Your task to perform on an android device: Add duracell triple a to the cart on amazon, then select checkout. Image 0: 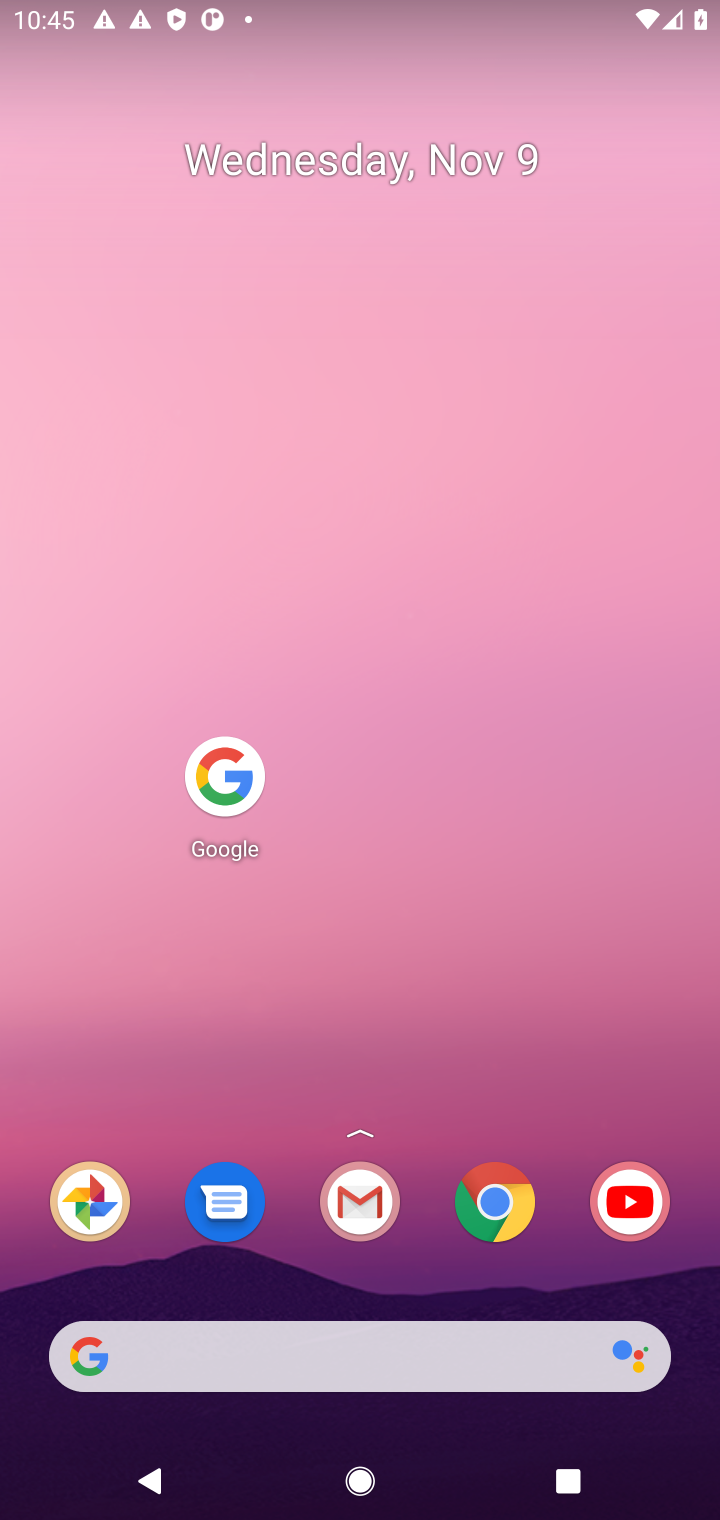
Step 0: click (219, 783)
Your task to perform on an android device: Add duracell triple a to the cart on amazon, then select checkout. Image 1: 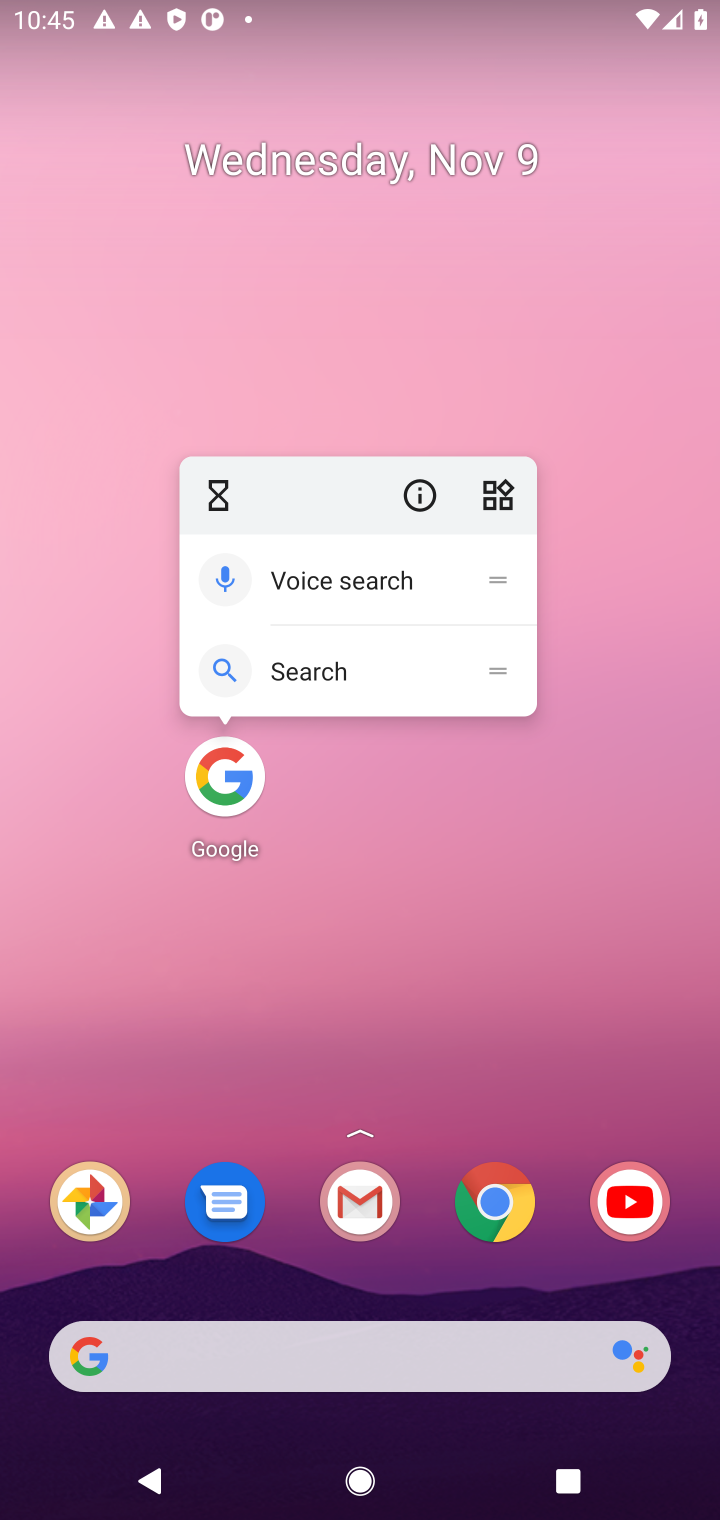
Step 1: click (237, 767)
Your task to perform on an android device: Add duracell triple a to the cart on amazon, then select checkout. Image 2: 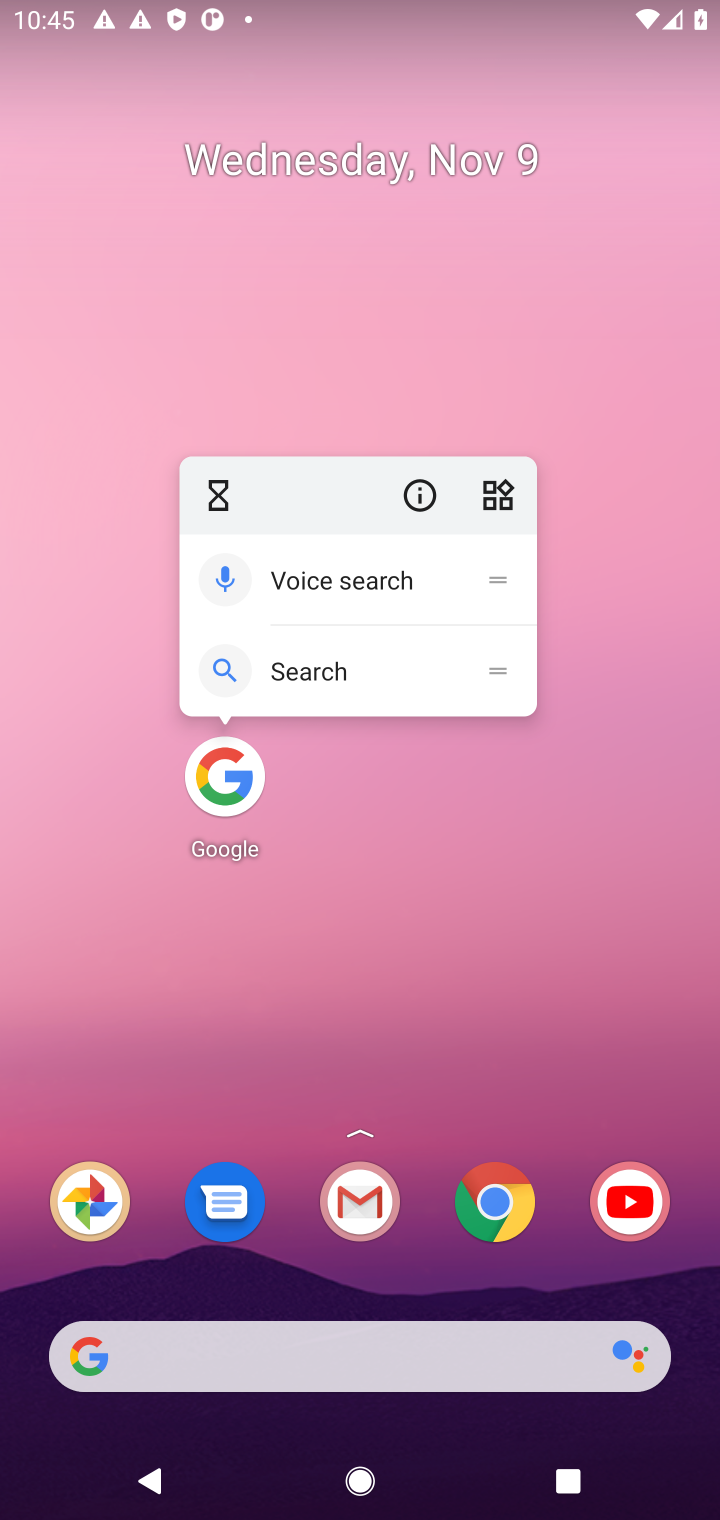
Step 2: click (219, 763)
Your task to perform on an android device: Add duracell triple a to the cart on amazon, then select checkout. Image 3: 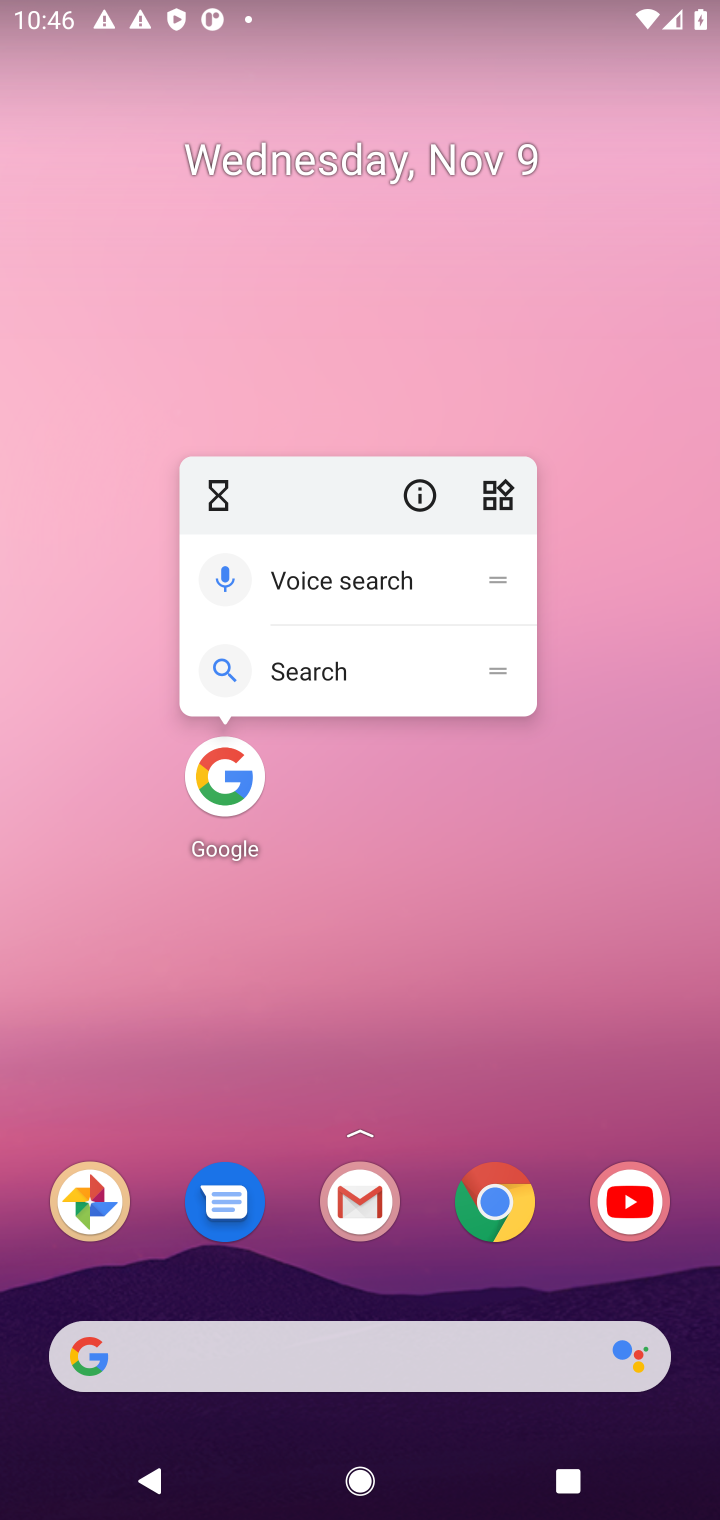
Step 3: click (206, 753)
Your task to perform on an android device: Add duracell triple a to the cart on amazon, then select checkout. Image 4: 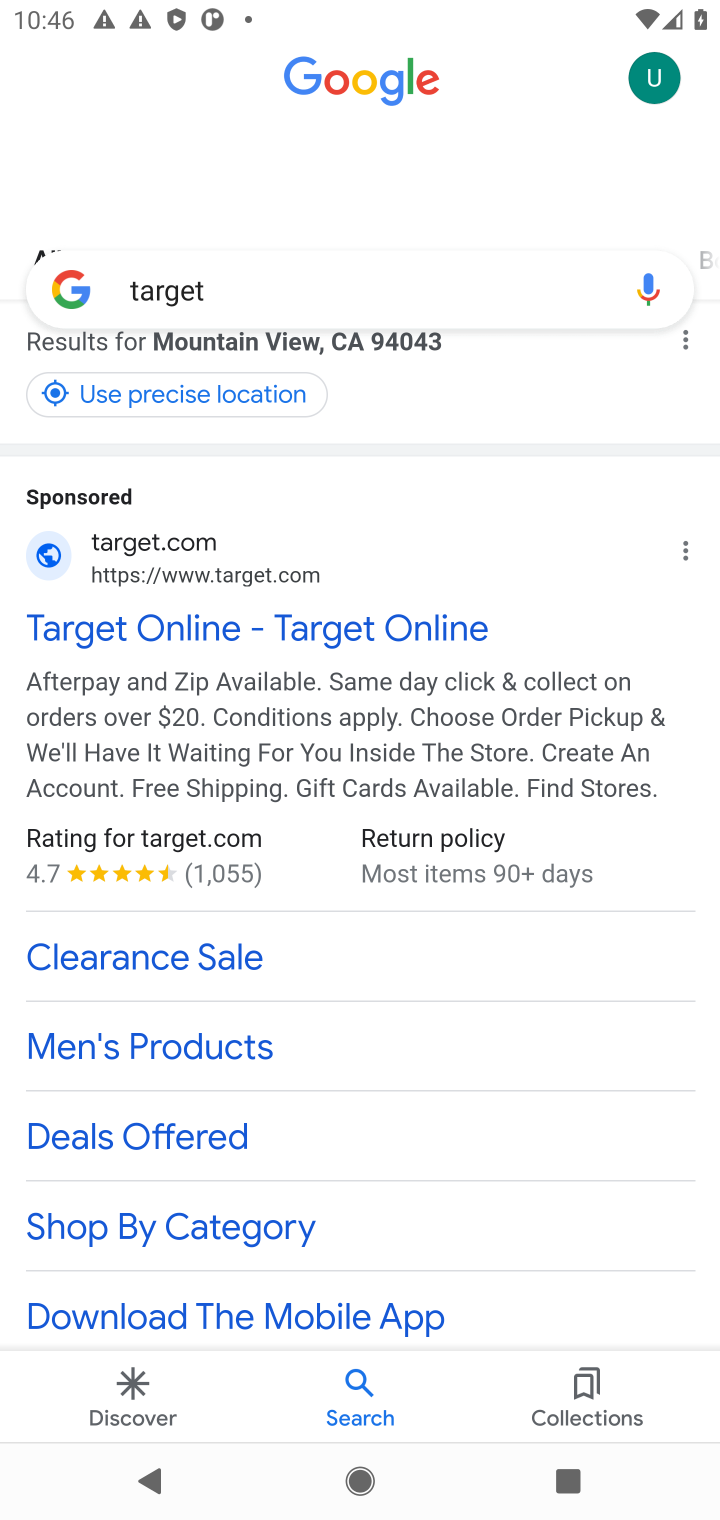
Step 4: click (269, 278)
Your task to perform on an android device: Add duracell triple a to the cart on amazon, then select checkout. Image 5: 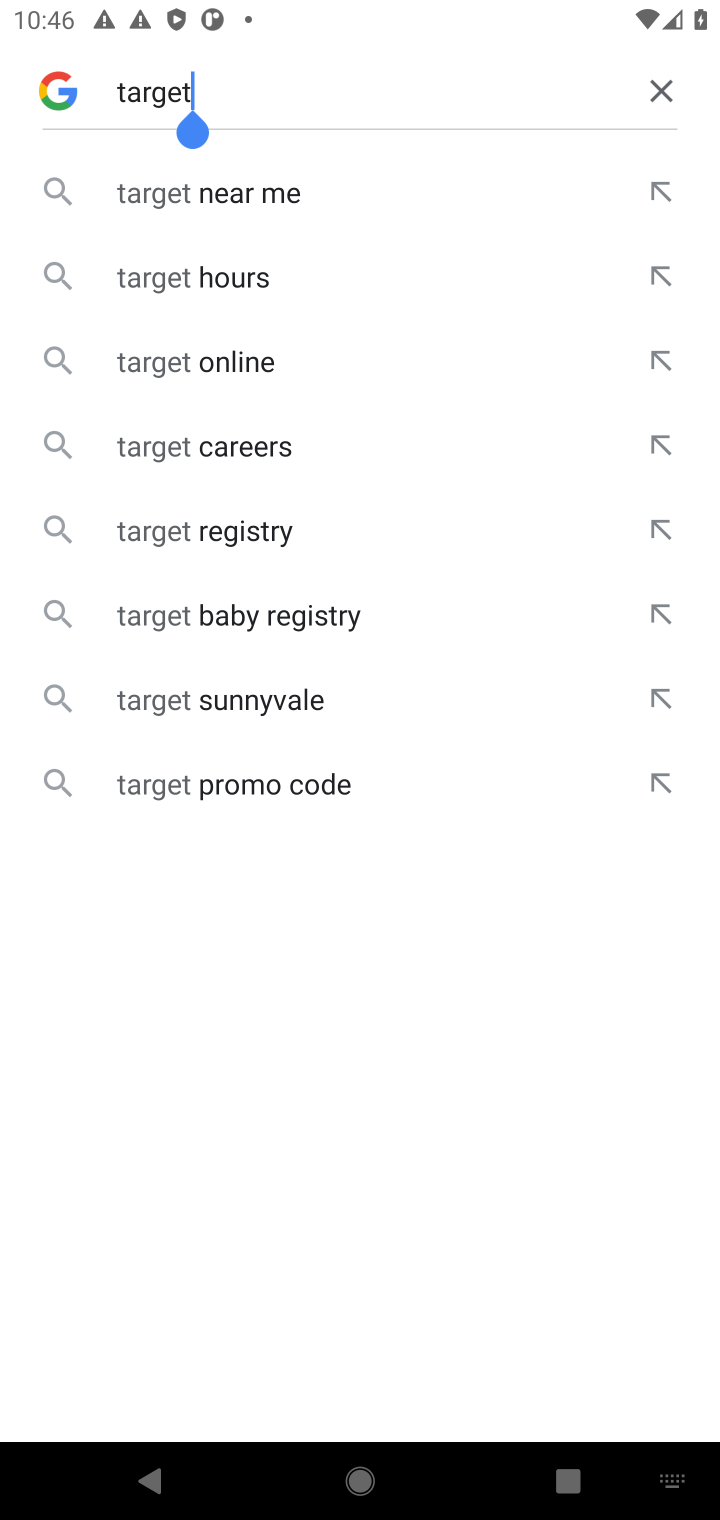
Step 5: click (660, 73)
Your task to perform on an android device: Add duracell triple a to the cart on amazon, then select checkout. Image 6: 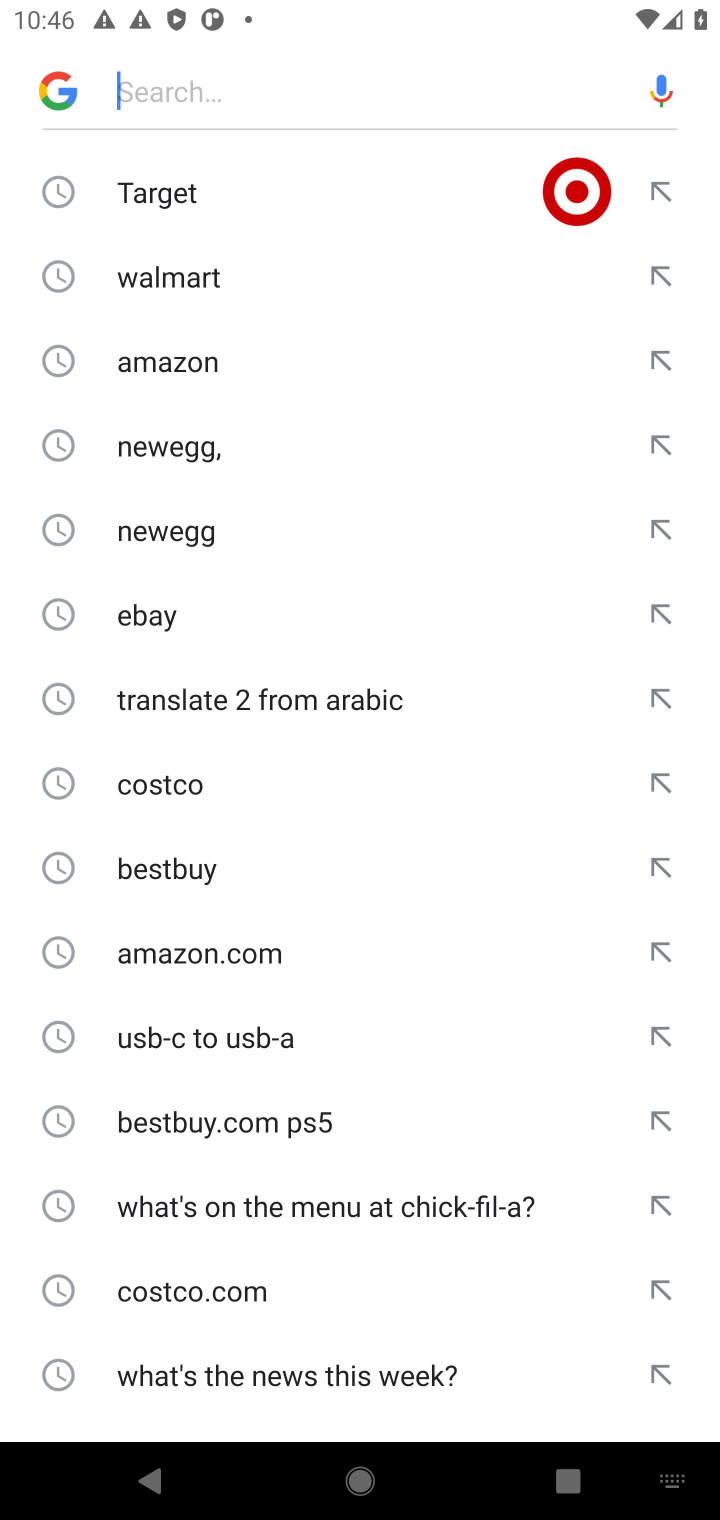
Step 6: click (160, 362)
Your task to perform on an android device: Add duracell triple a to the cart on amazon, then select checkout. Image 7: 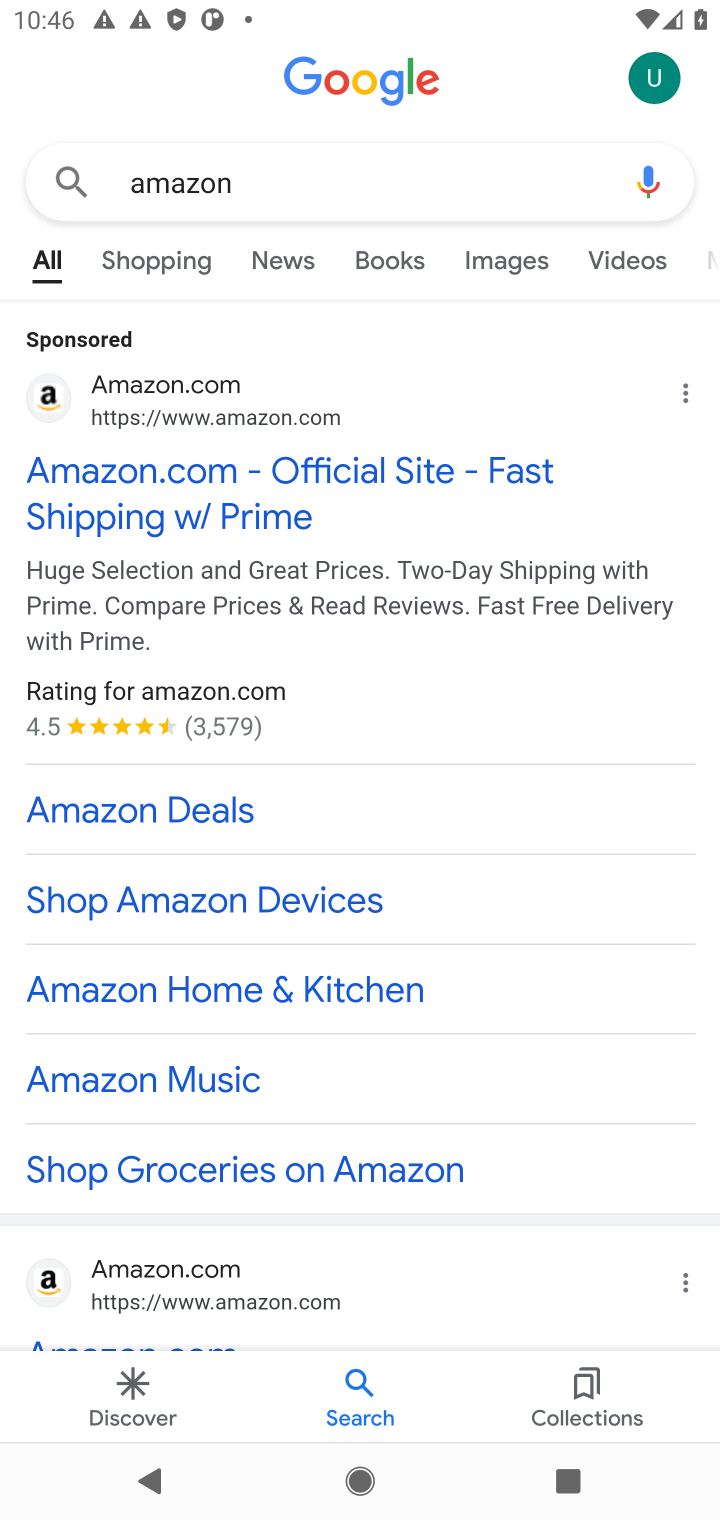
Step 7: click (198, 458)
Your task to perform on an android device: Add duracell triple a to the cart on amazon, then select checkout. Image 8: 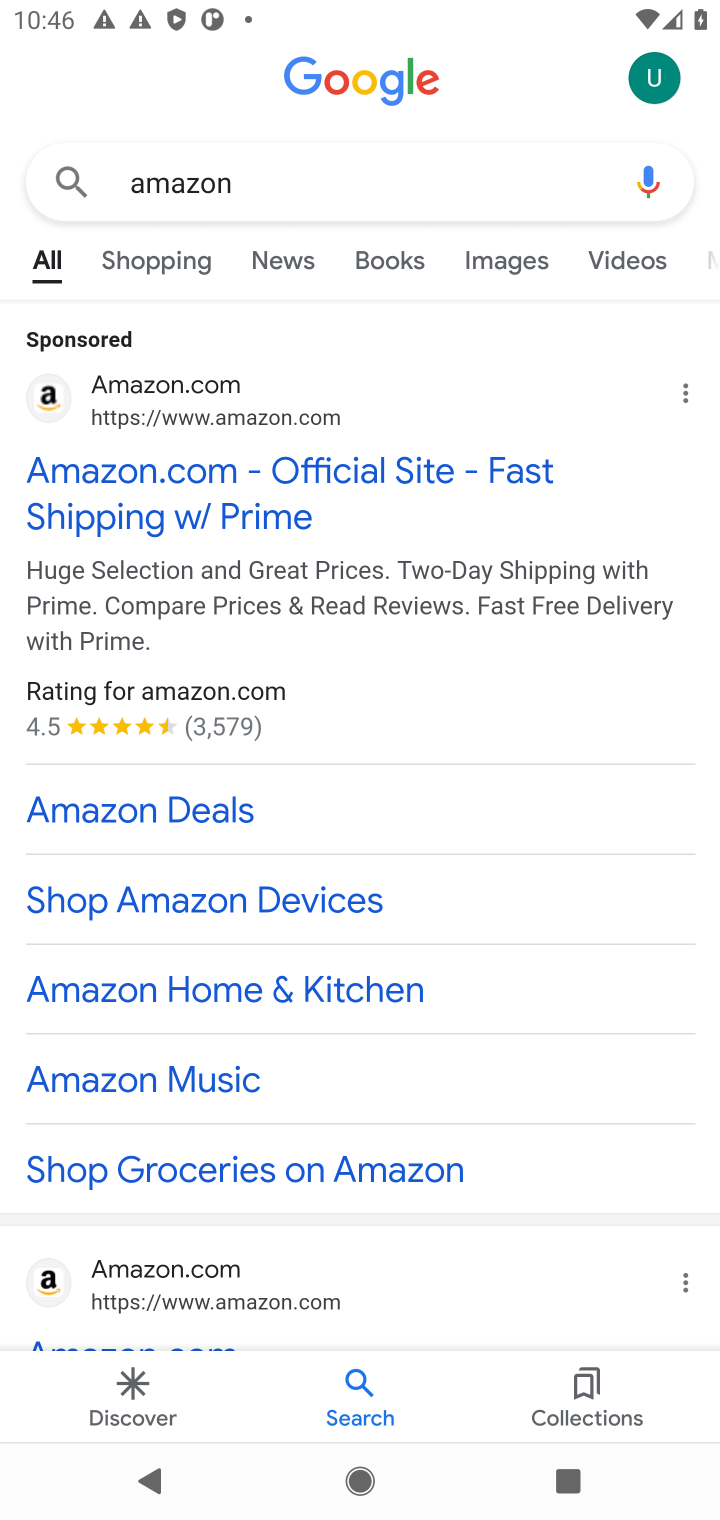
Step 8: click (216, 469)
Your task to perform on an android device: Add duracell triple a to the cart on amazon, then select checkout. Image 9: 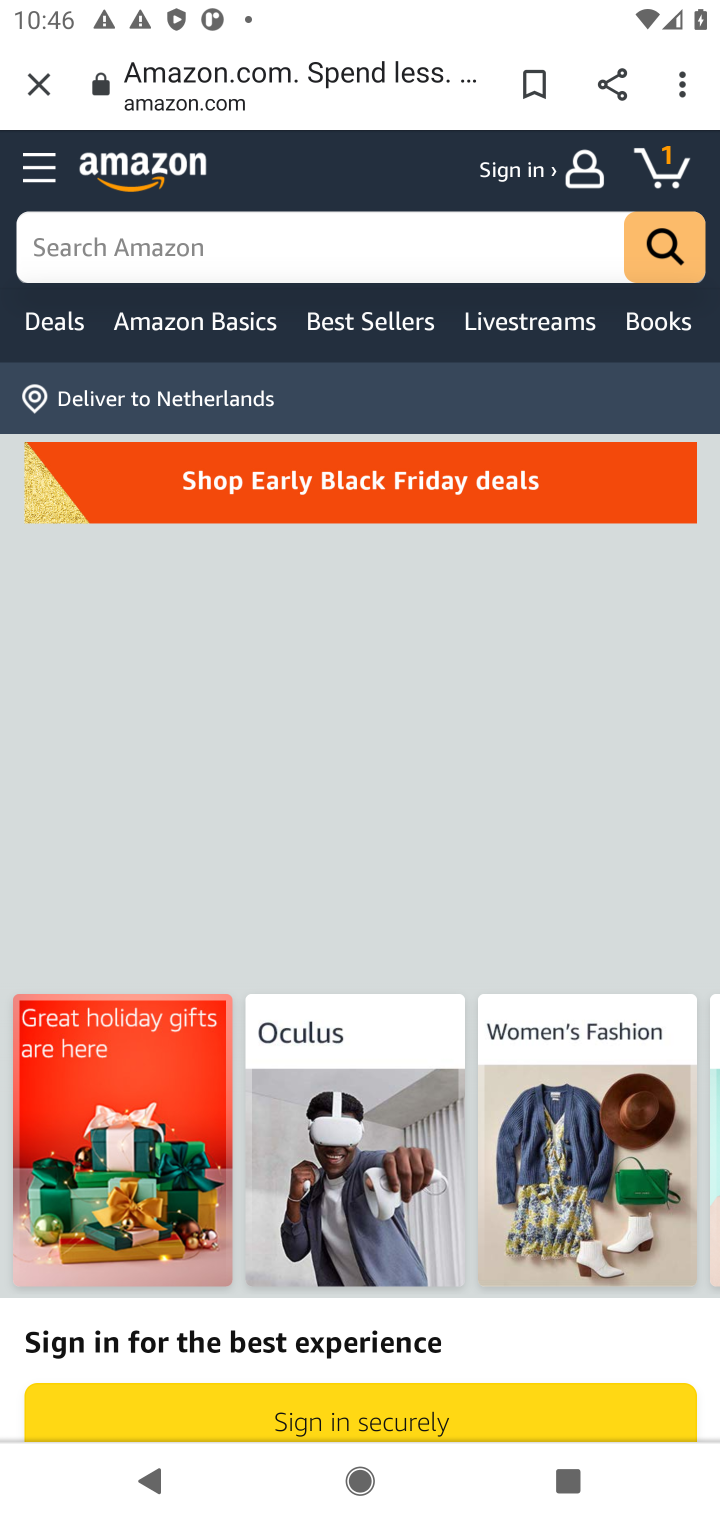
Step 9: click (123, 239)
Your task to perform on an android device: Add duracell triple a to the cart on amazon, then select checkout. Image 10: 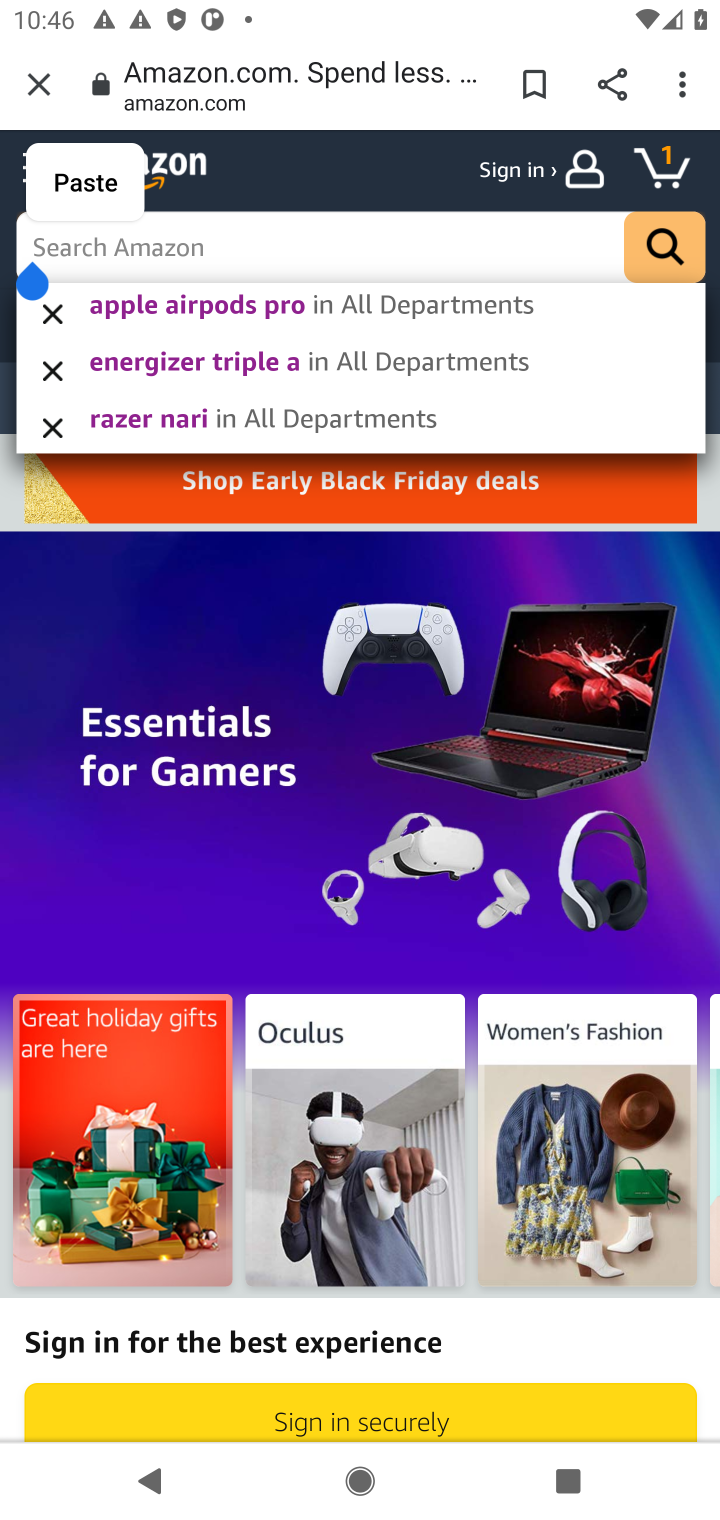
Step 10: type "duracell triple a"
Your task to perform on an android device: Add duracell triple a to the cart on amazon, then select checkout. Image 11: 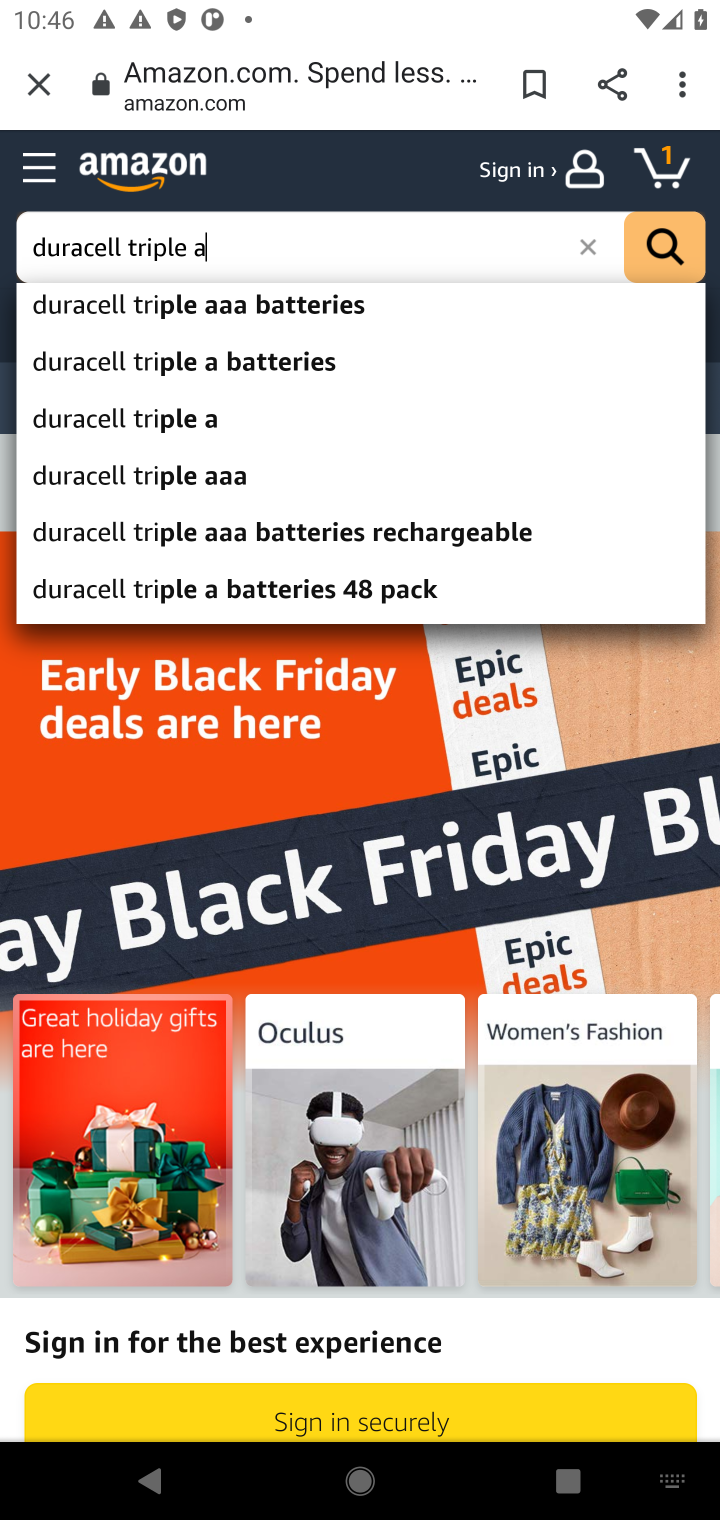
Step 11: press enter
Your task to perform on an android device: Add duracell triple a to the cart on amazon, then select checkout. Image 12: 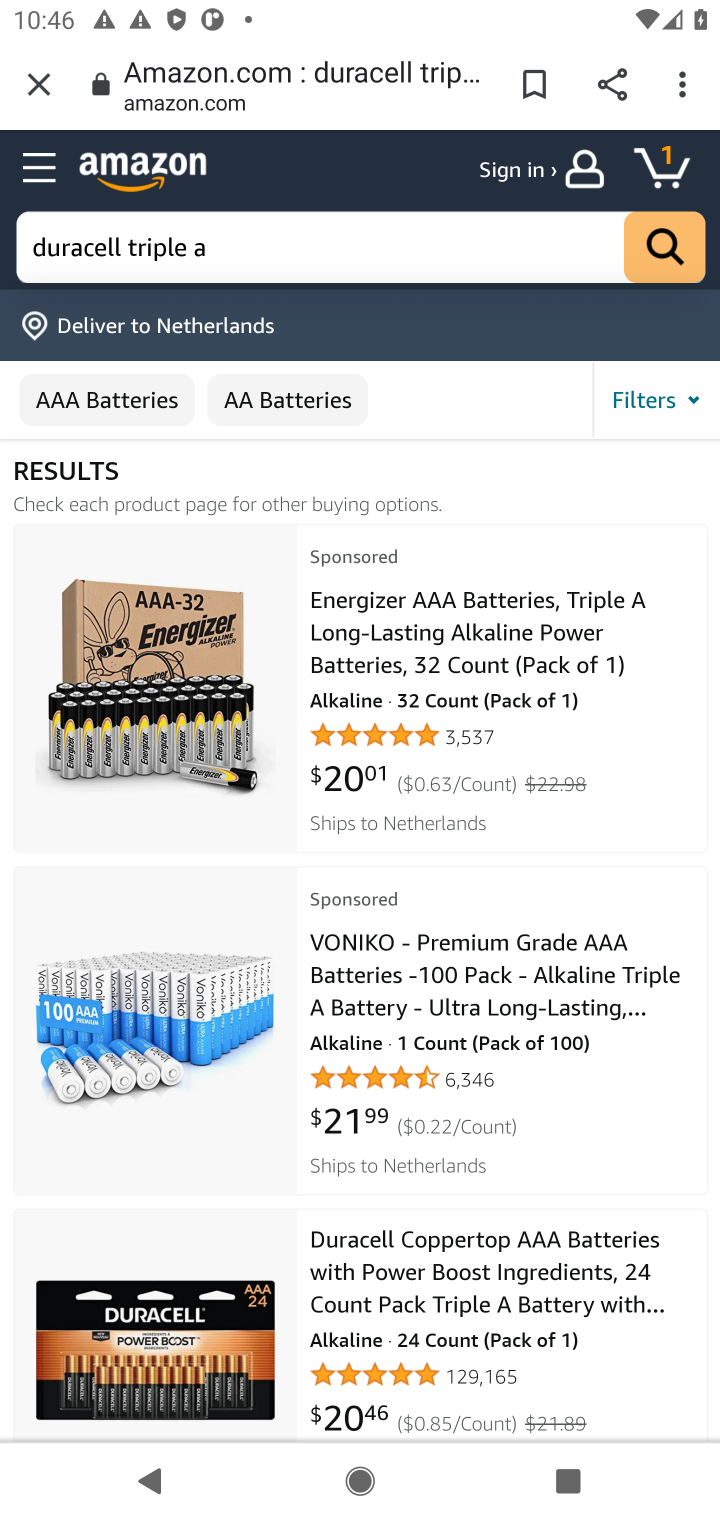
Step 12: task complete